Your task to perform on an android device: Open notification settings Image 0: 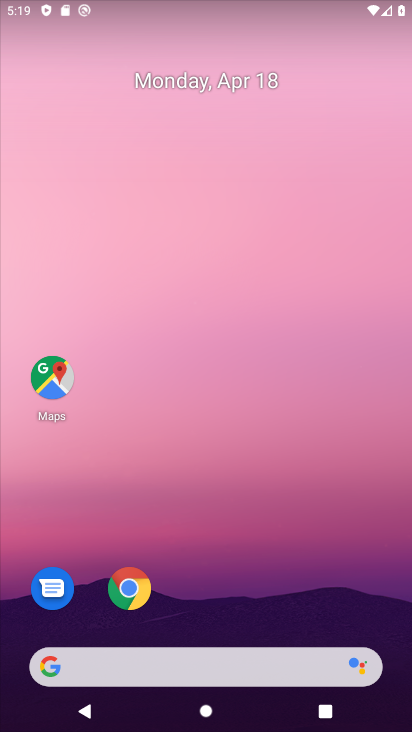
Step 0: drag from (209, 578) to (213, 3)
Your task to perform on an android device: Open notification settings Image 1: 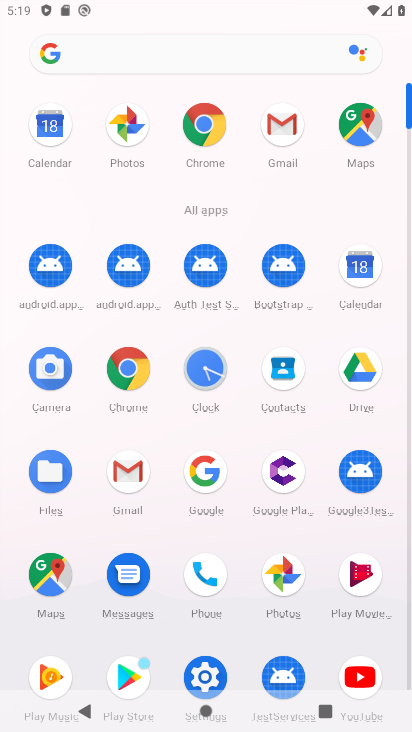
Step 1: click (197, 668)
Your task to perform on an android device: Open notification settings Image 2: 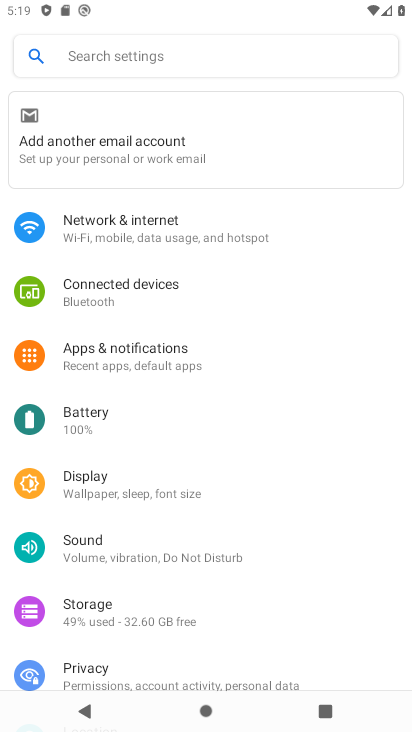
Step 2: click (138, 350)
Your task to perform on an android device: Open notification settings Image 3: 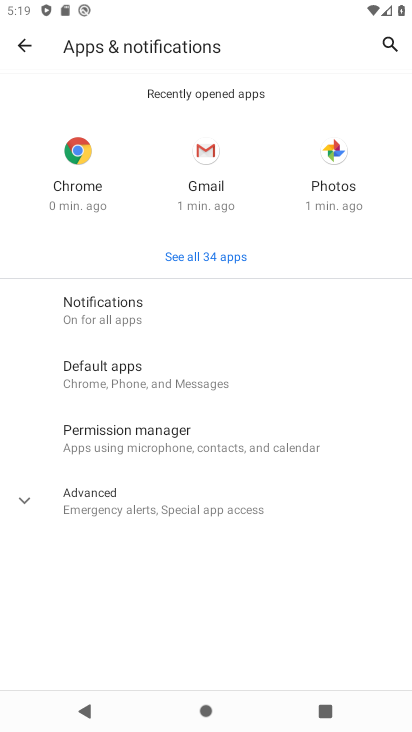
Step 3: click (139, 317)
Your task to perform on an android device: Open notification settings Image 4: 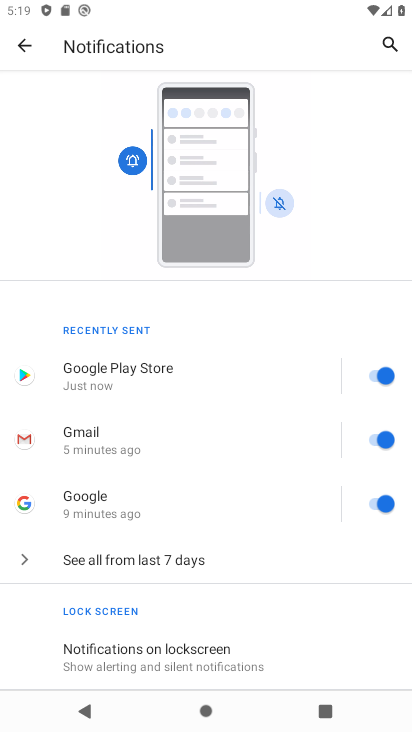
Step 4: task complete